Your task to perform on an android device: turn vacation reply on in the gmail app Image 0: 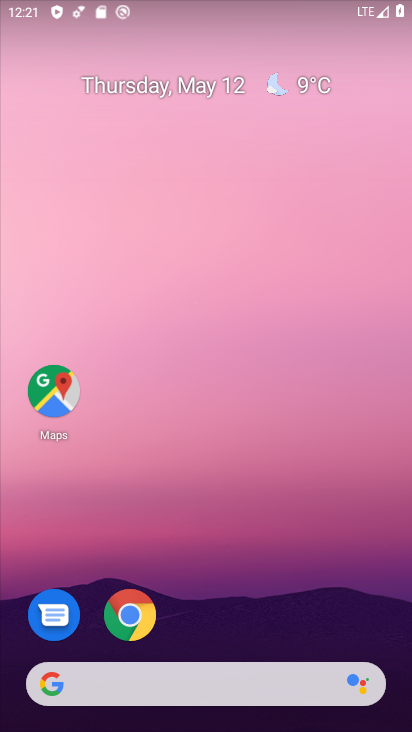
Step 0: drag from (234, 539) to (176, 48)
Your task to perform on an android device: turn vacation reply on in the gmail app Image 1: 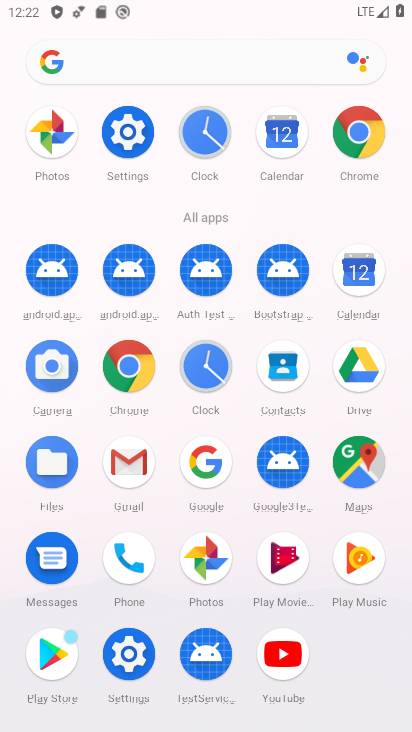
Step 1: click (125, 462)
Your task to perform on an android device: turn vacation reply on in the gmail app Image 2: 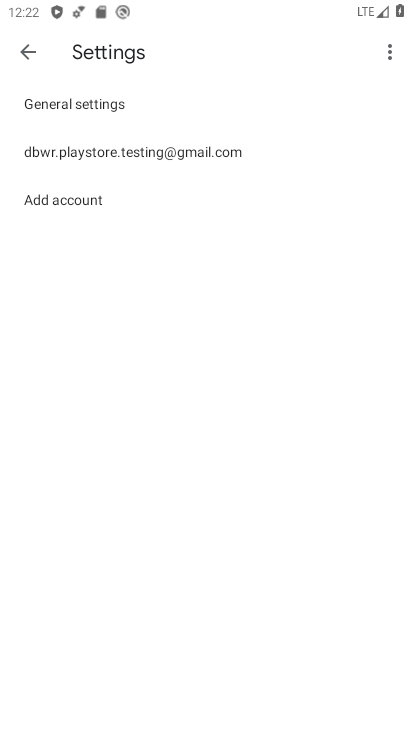
Step 2: click (121, 147)
Your task to perform on an android device: turn vacation reply on in the gmail app Image 3: 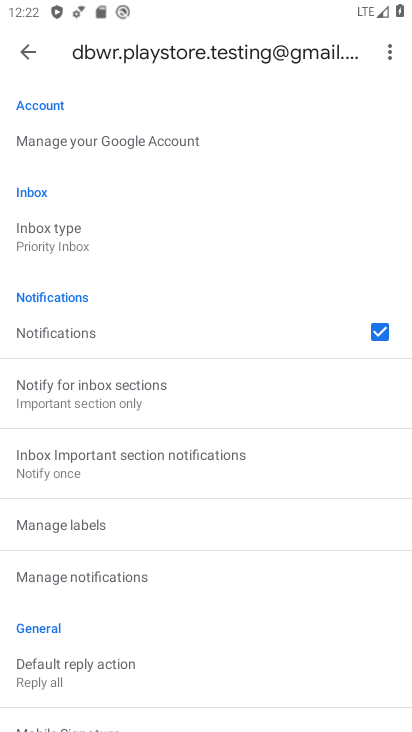
Step 3: drag from (140, 506) to (198, 374)
Your task to perform on an android device: turn vacation reply on in the gmail app Image 4: 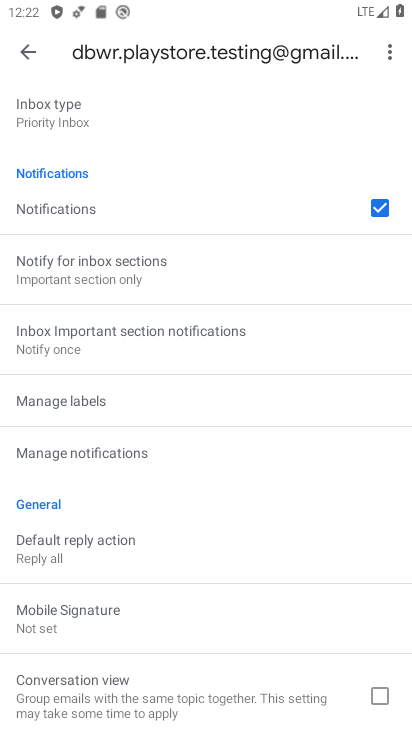
Step 4: drag from (135, 492) to (191, 386)
Your task to perform on an android device: turn vacation reply on in the gmail app Image 5: 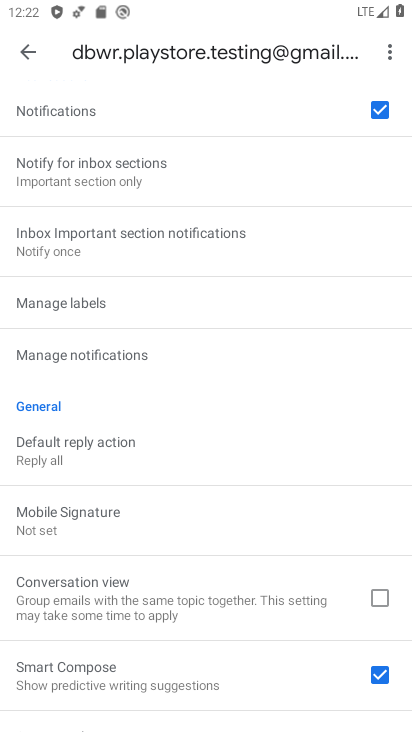
Step 5: drag from (107, 630) to (202, 460)
Your task to perform on an android device: turn vacation reply on in the gmail app Image 6: 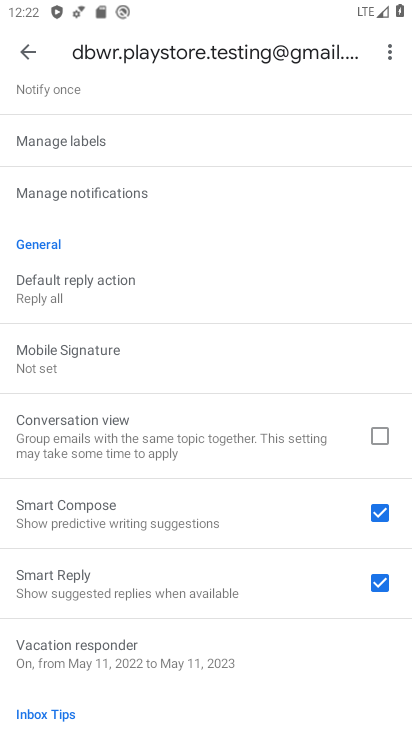
Step 6: click (103, 644)
Your task to perform on an android device: turn vacation reply on in the gmail app Image 7: 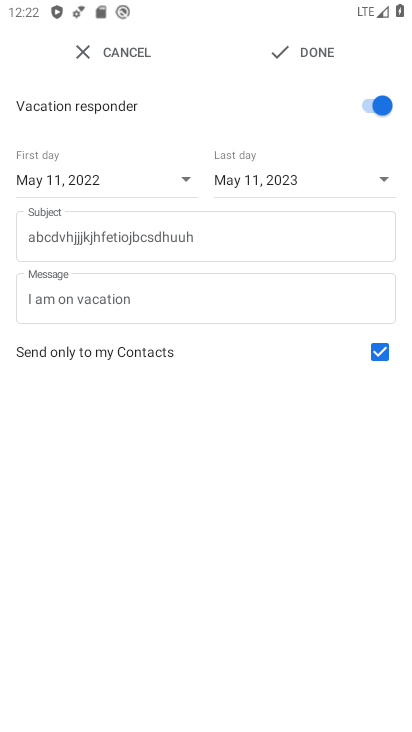
Step 7: task complete